Your task to perform on an android device: Open eBay Image 0: 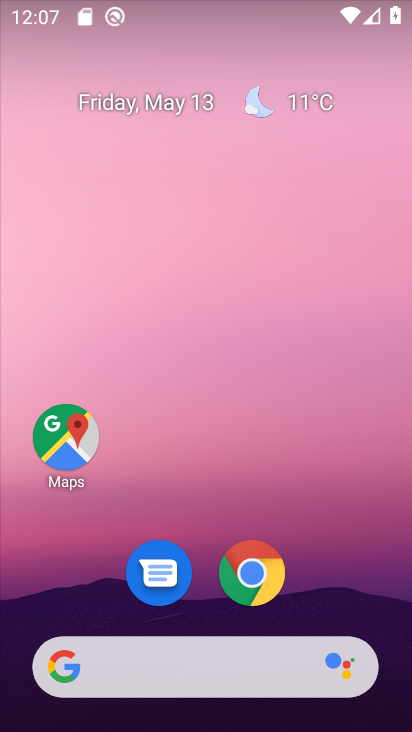
Step 0: drag from (329, 368) to (238, 23)
Your task to perform on an android device: Open eBay Image 1: 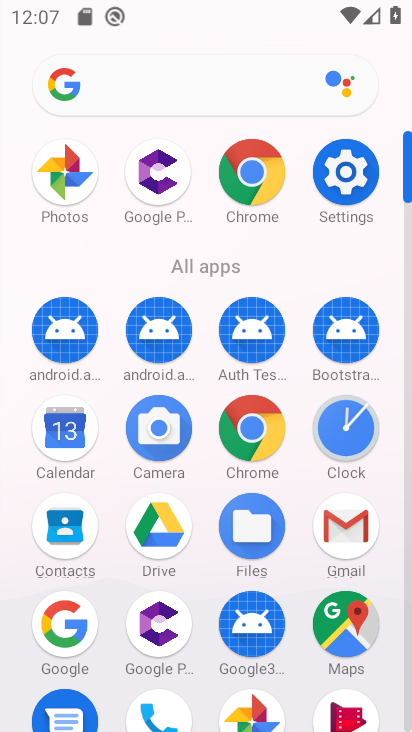
Step 1: click (273, 167)
Your task to perform on an android device: Open eBay Image 2: 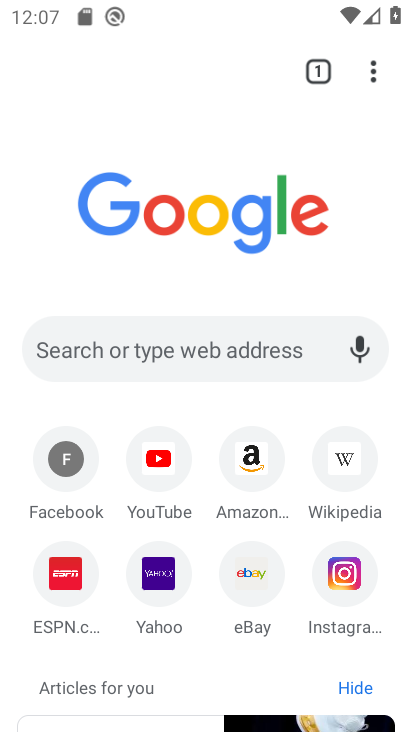
Step 2: click (248, 588)
Your task to perform on an android device: Open eBay Image 3: 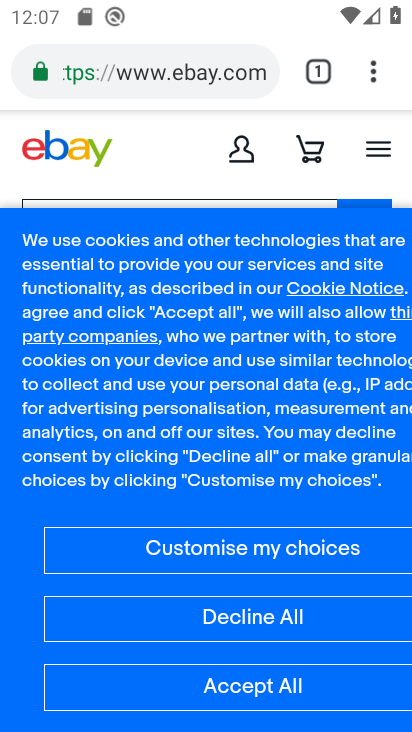
Step 3: task complete